Your task to perform on an android device: Go to eBay Image 0: 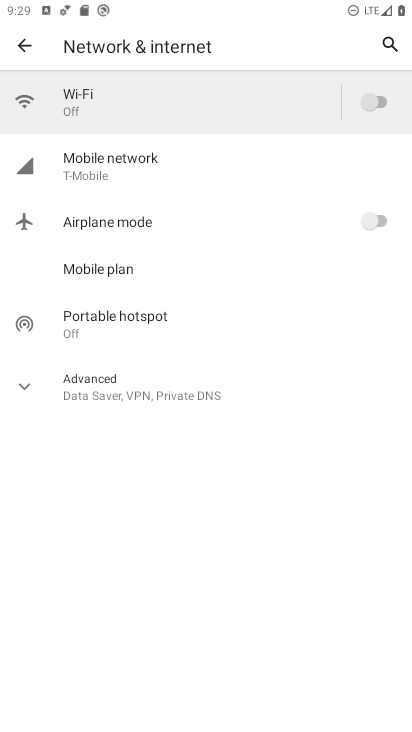
Step 0: press home button
Your task to perform on an android device: Go to eBay Image 1: 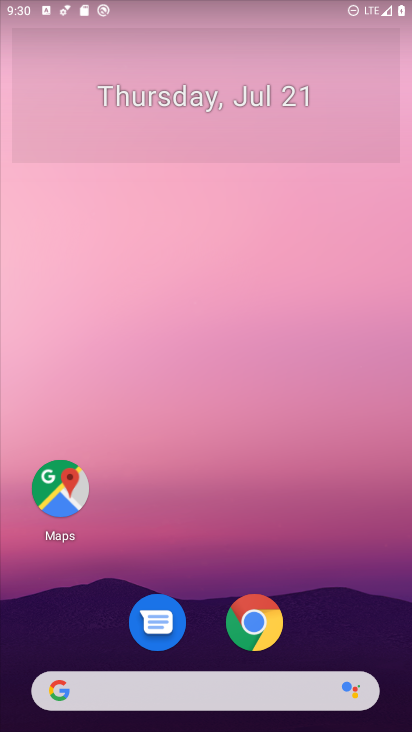
Step 1: click (190, 705)
Your task to perform on an android device: Go to eBay Image 2: 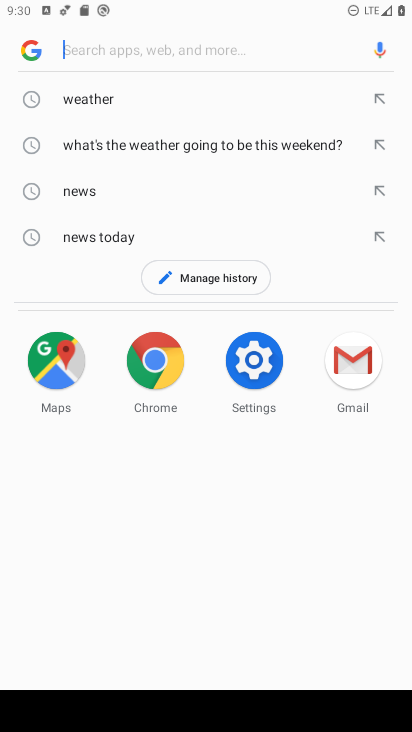
Step 2: type "ebay"
Your task to perform on an android device: Go to eBay Image 3: 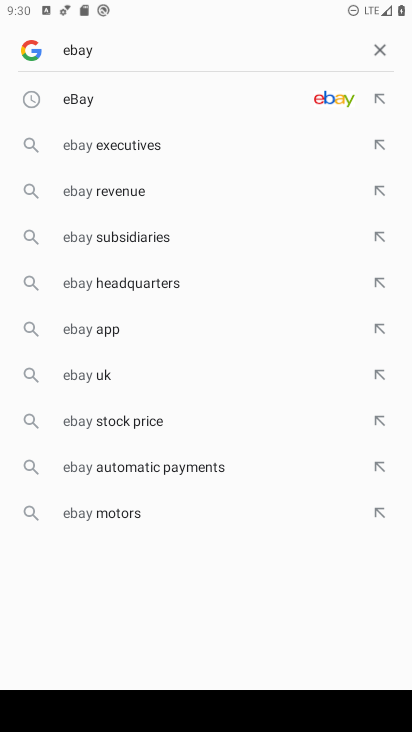
Step 3: click (326, 99)
Your task to perform on an android device: Go to eBay Image 4: 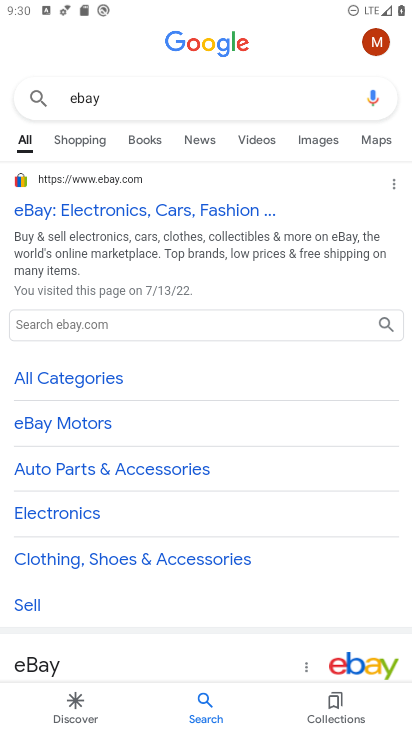
Step 4: click (121, 216)
Your task to perform on an android device: Go to eBay Image 5: 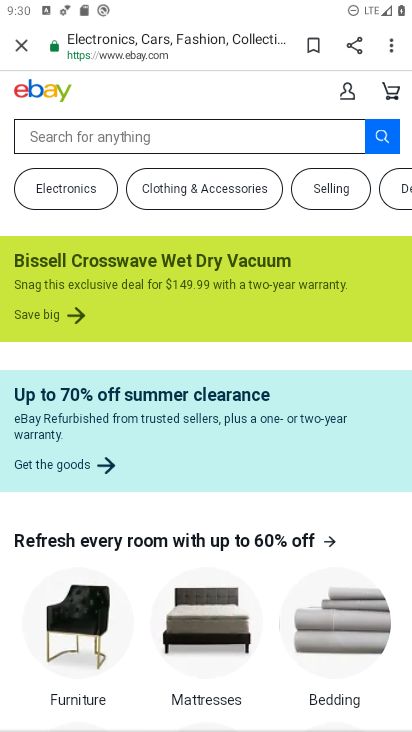
Step 5: task complete